Your task to perform on an android device: When is my next meeting? Image 0: 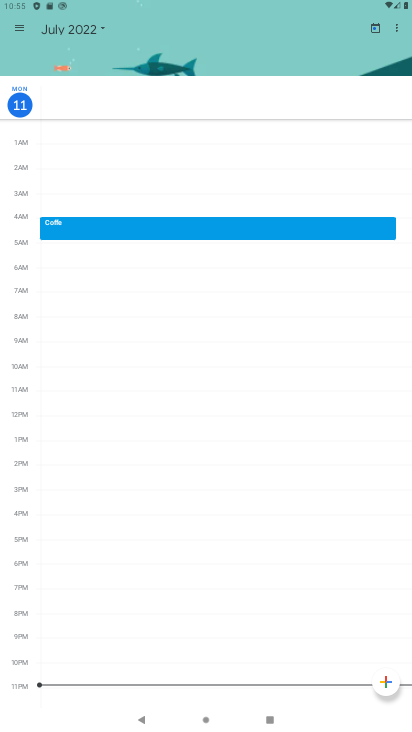
Step 0: press home button
Your task to perform on an android device: When is my next meeting? Image 1: 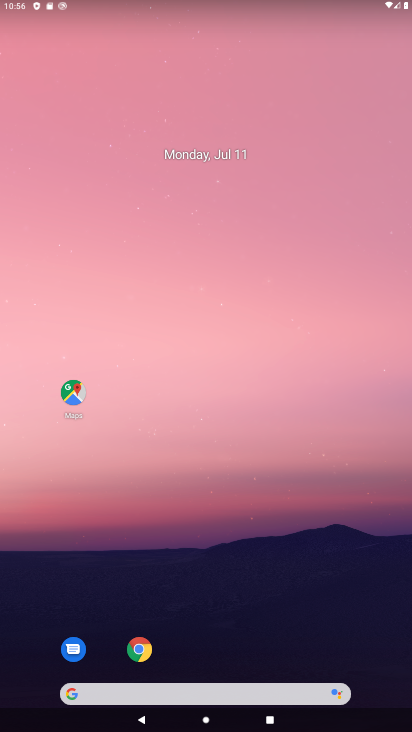
Step 1: drag from (193, 696) to (285, 142)
Your task to perform on an android device: When is my next meeting? Image 2: 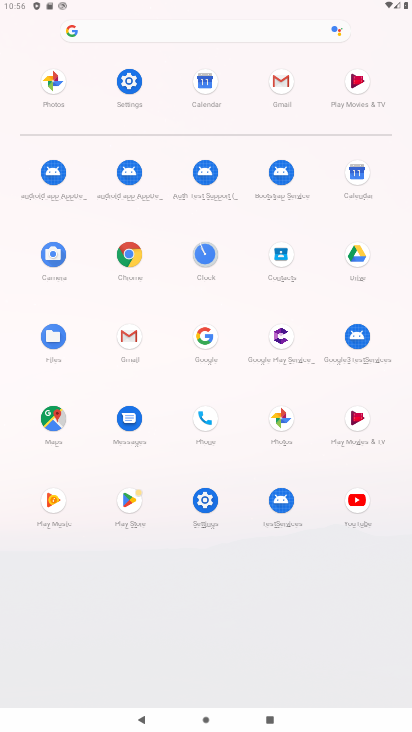
Step 2: click (354, 170)
Your task to perform on an android device: When is my next meeting? Image 3: 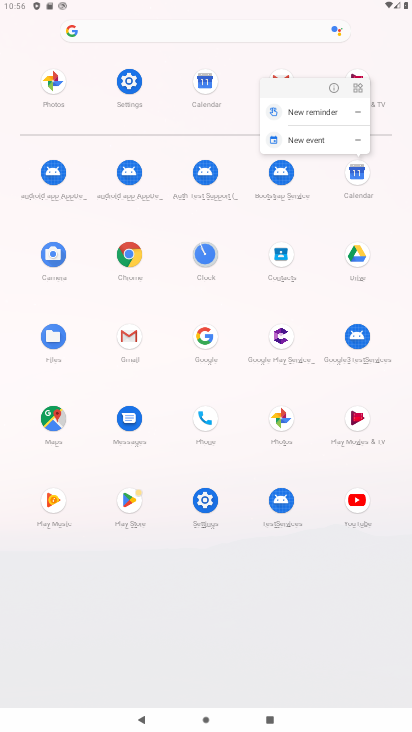
Step 3: click (354, 170)
Your task to perform on an android device: When is my next meeting? Image 4: 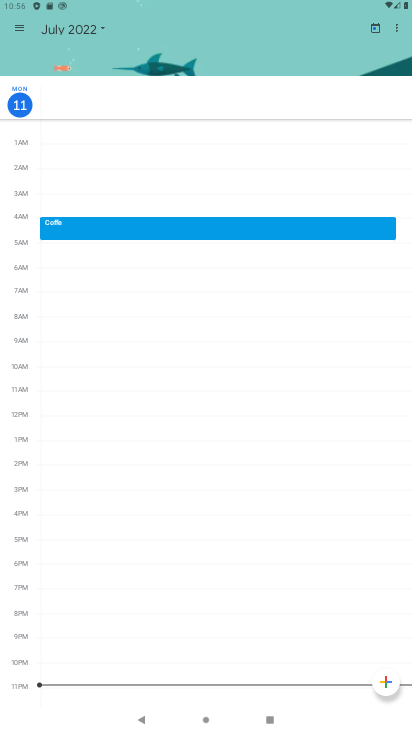
Step 4: click (98, 22)
Your task to perform on an android device: When is my next meeting? Image 5: 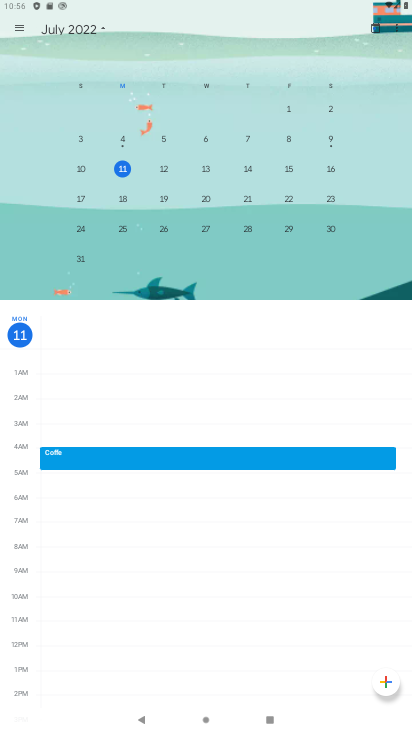
Step 5: click (288, 173)
Your task to perform on an android device: When is my next meeting? Image 6: 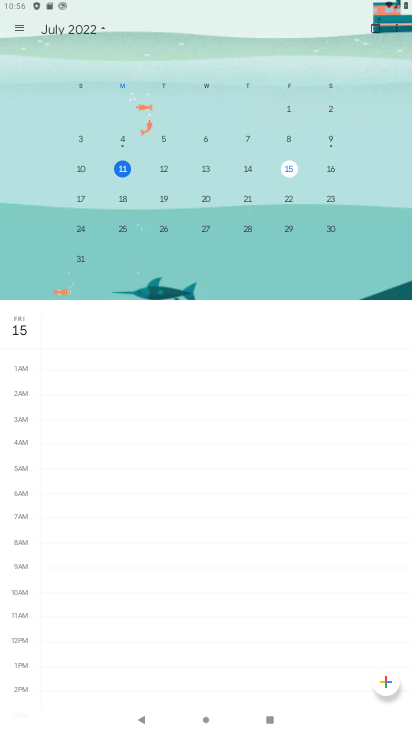
Step 6: click (20, 26)
Your task to perform on an android device: When is my next meeting? Image 7: 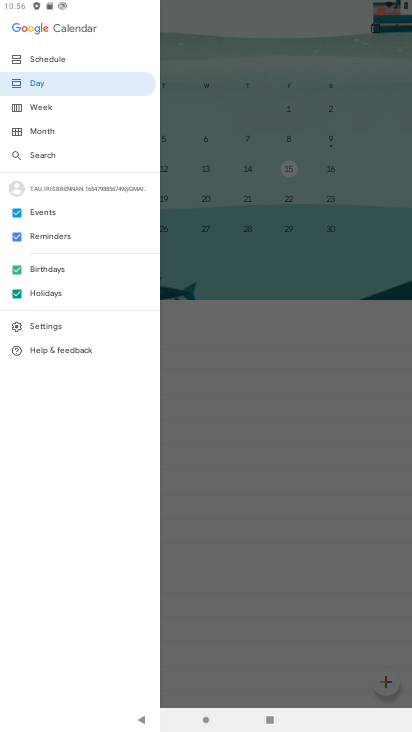
Step 7: click (39, 61)
Your task to perform on an android device: When is my next meeting? Image 8: 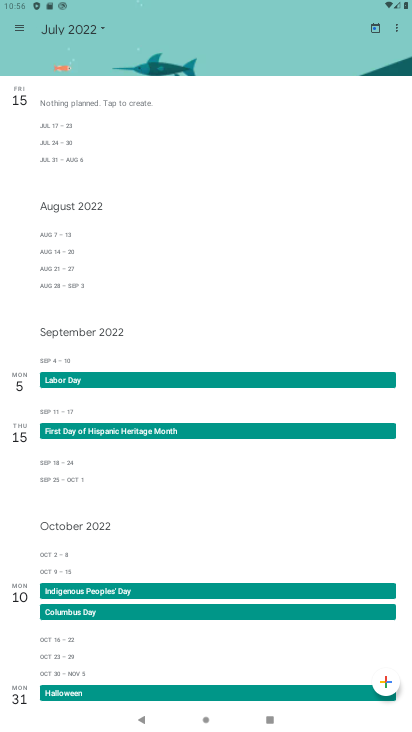
Step 8: task complete